Your task to perform on an android device: turn vacation reply on in the gmail app Image 0: 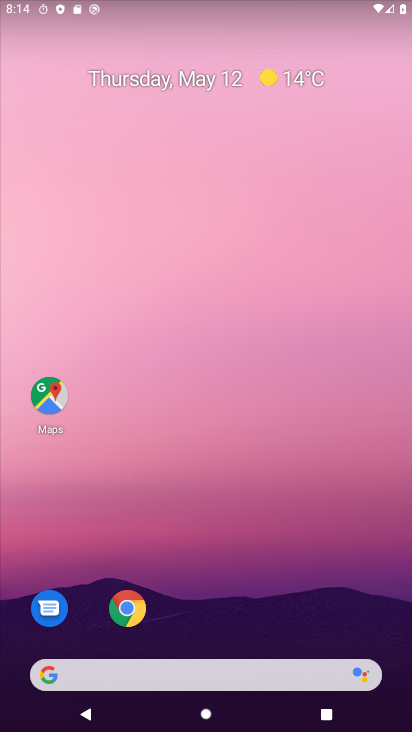
Step 0: drag from (266, 580) to (366, 180)
Your task to perform on an android device: turn vacation reply on in the gmail app Image 1: 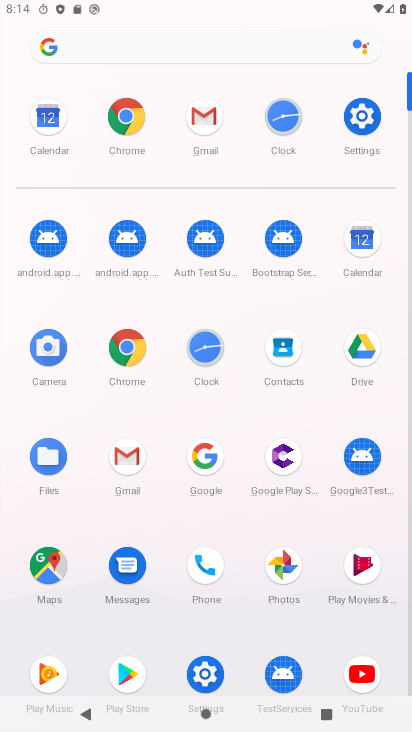
Step 1: click (209, 131)
Your task to perform on an android device: turn vacation reply on in the gmail app Image 2: 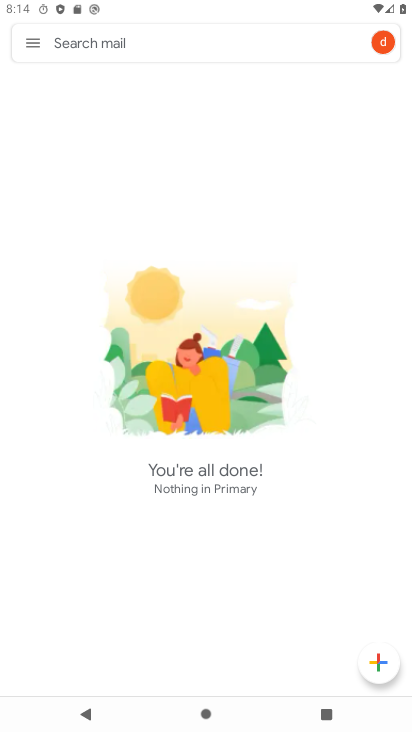
Step 2: click (43, 55)
Your task to perform on an android device: turn vacation reply on in the gmail app Image 3: 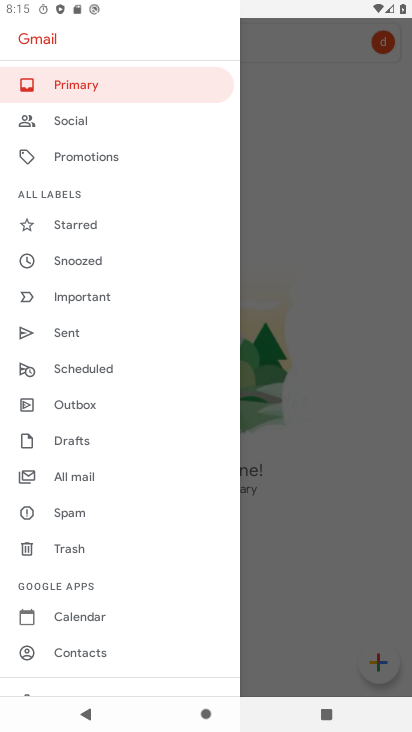
Step 3: drag from (159, 569) to (264, 214)
Your task to perform on an android device: turn vacation reply on in the gmail app Image 4: 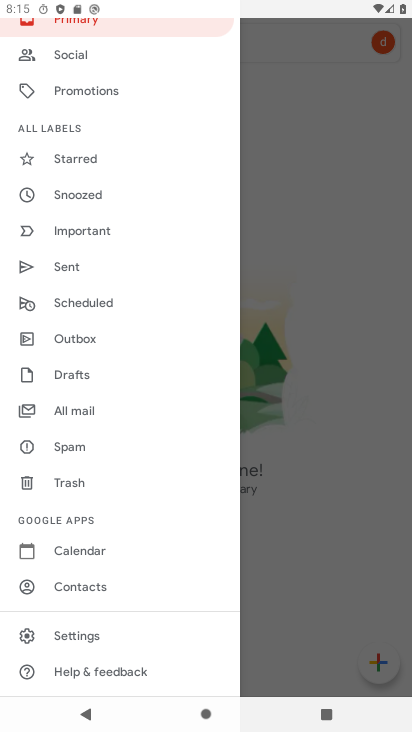
Step 4: click (111, 635)
Your task to perform on an android device: turn vacation reply on in the gmail app Image 5: 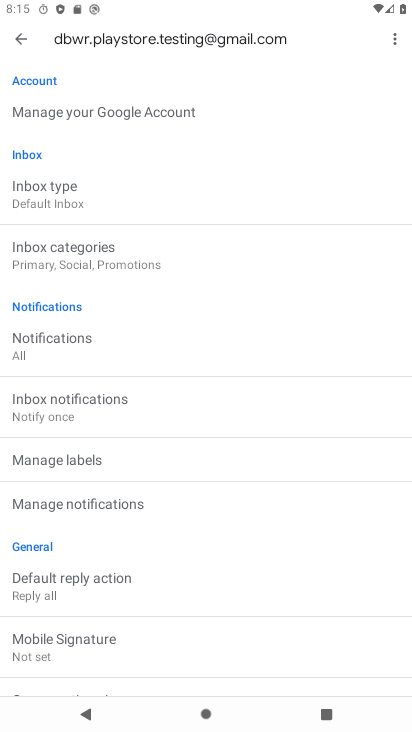
Step 5: drag from (229, 574) to (366, 212)
Your task to perform on an android device: turn vacation reply on in the gmail app Image 6: 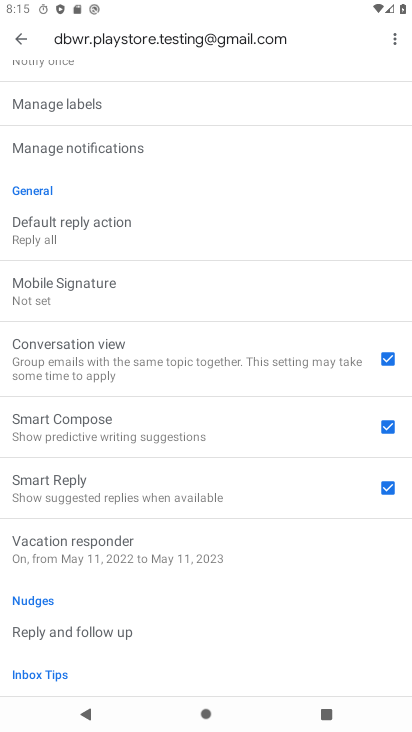
Step 6: drag from (170, 603) to (230, 164)
Your task to perform on an android device: turn vacation reply on in the gmail app Image 7: 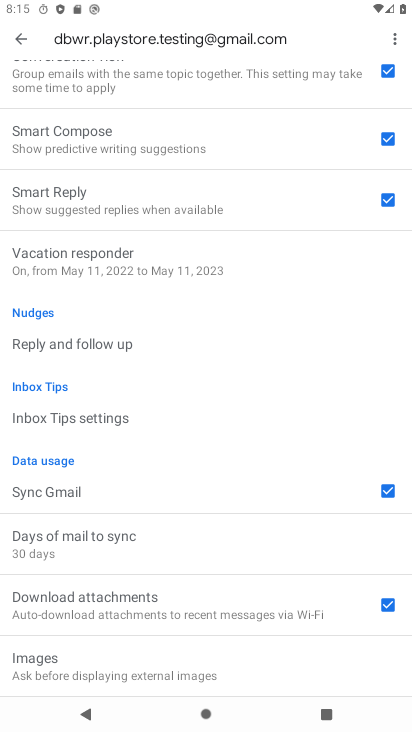
Step 7: drag from (216, 461) to (258, 13)
Your task to perform on an android device: turn vacation reply on in the gmail app Image 8: 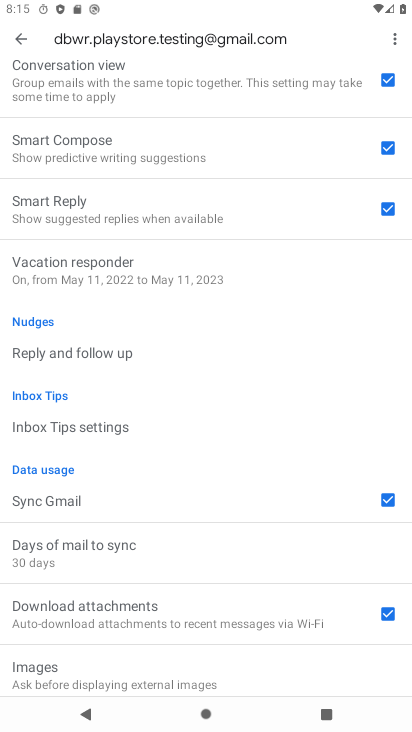
Step 8: drag from (237, 445) to (270, 69)
Your task to perform on an android device: turn vacation reply on in the gmail app Image 9: 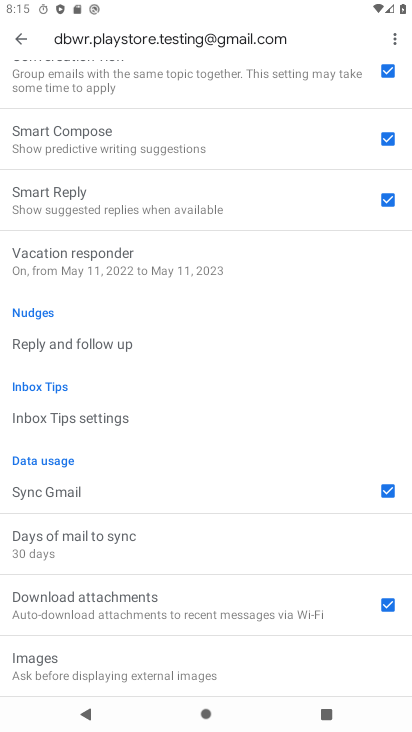
Step 9: click (238, 284)
Your task to perform on an android device: turn vacation reply on in the gmail app Image 10: 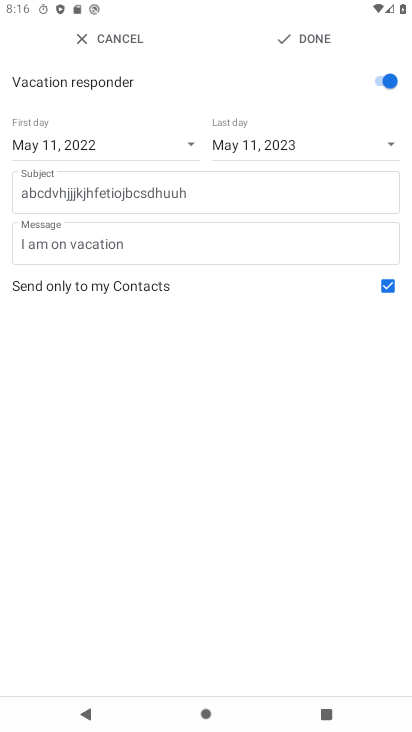
Step 10: task complete